Your task to perform on an android device: see sites visited before in the chrome app Image 0: 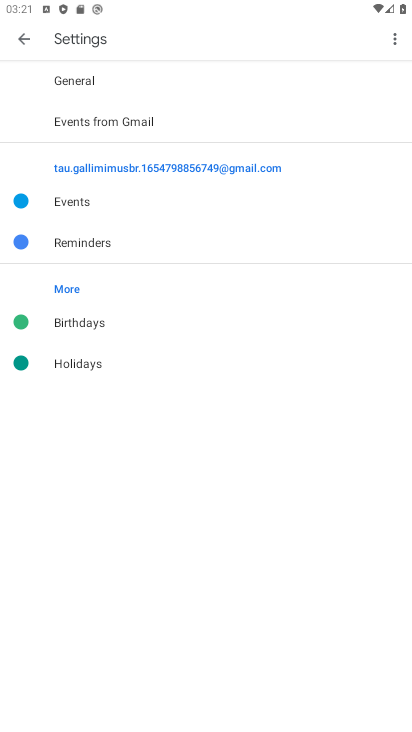
Step 0: press home button
Your task to perform on an android device: see sites visited before in the chrome app Image 1: 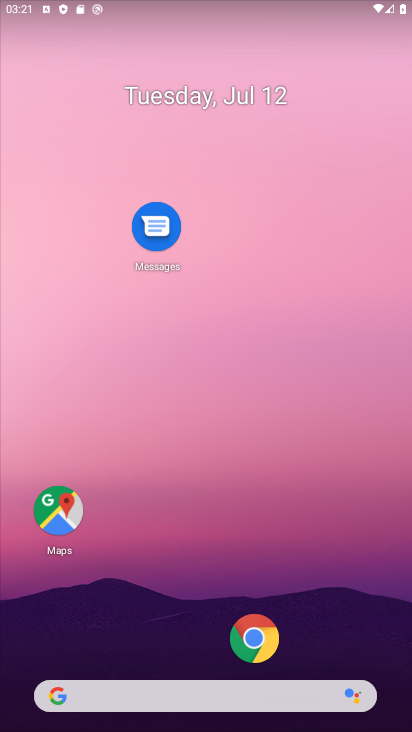
Step 1: click (253, 626)
Your task to perform on an android device: see sites visited before in the chrome app Image 2: 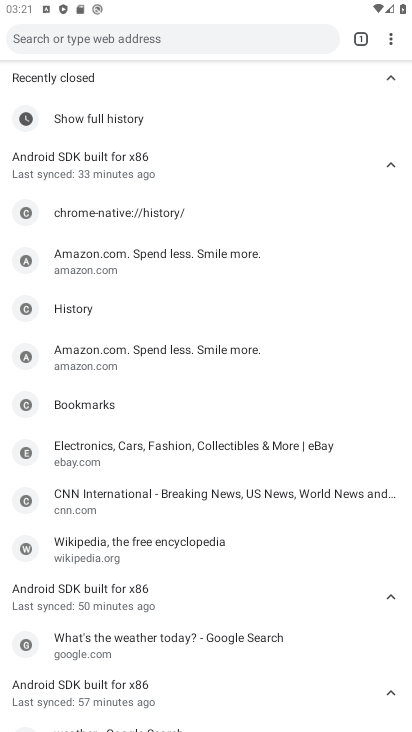
Step 2: task complete